Your task to perform on an android device: move a message to another label in the gmail app Image 0: 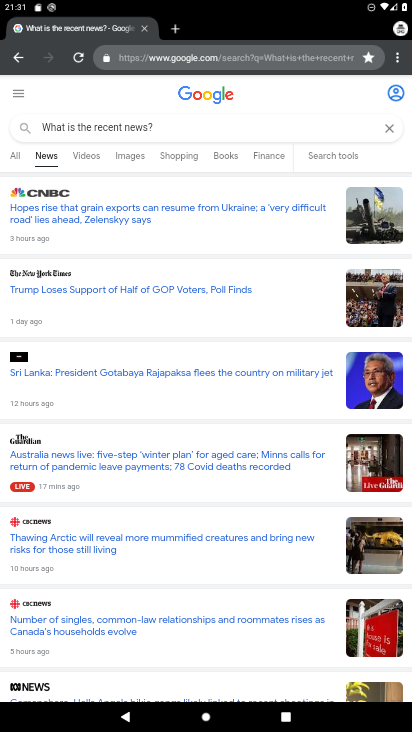
Step 0: press home button
Your task to perform on an android device: move a message to another label in the gmail app Image 1: 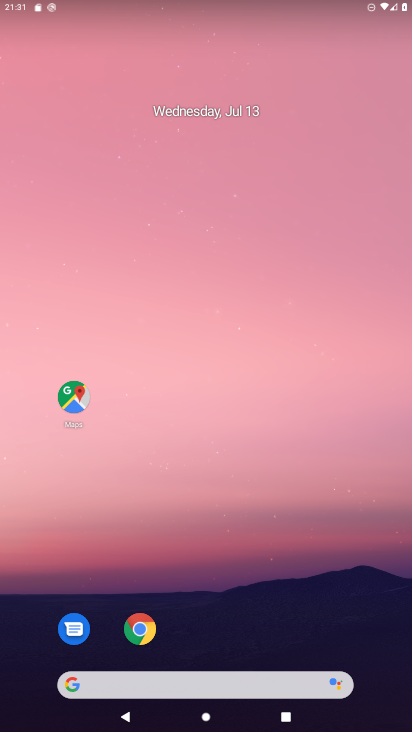
Step 1: drag from (282, 582) to (285, 125)
Your task to perform on an android device: move a message to another label in the gmail app Image 2: 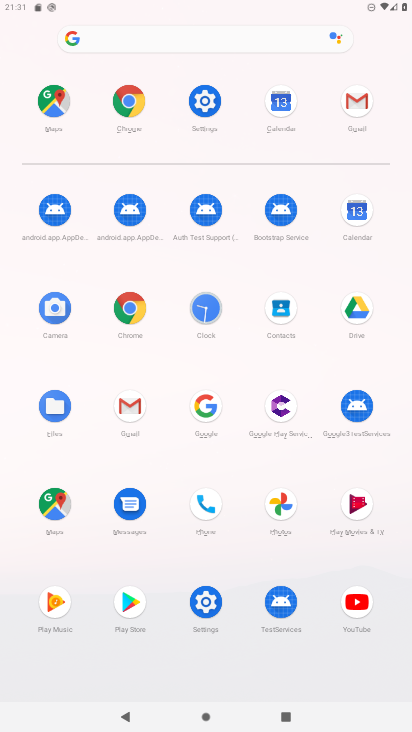
Step 2: click (127, 398)
Your task to perform on an android device: move a message to another label in the gmail app Image 3: 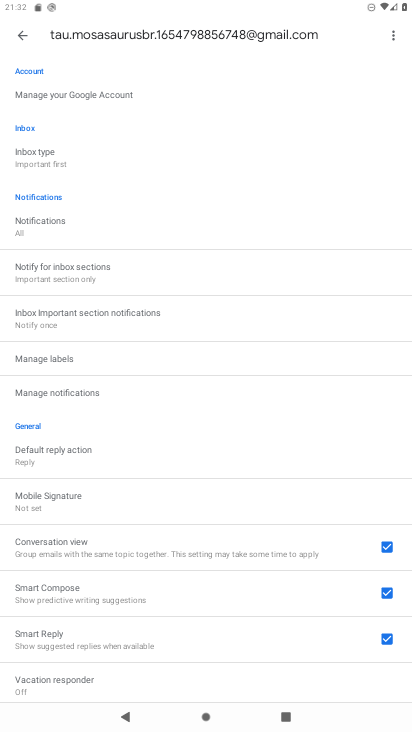
Step 3: click (20, 21)
Your task to perform on an android device: move a message to another label in the gmail app Image 4: 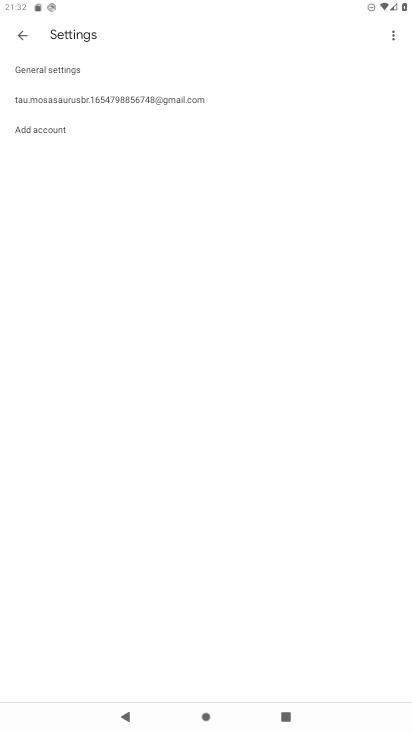
Step 4: click (20, 25)
Your task to perform on an android device: move a message to another label in the gmail app Image 5: 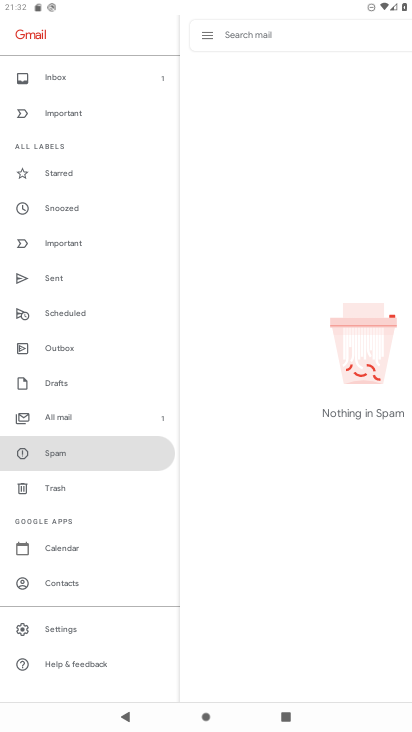
Step 5: click (58, 73)
Your task to perform on an android device: move a message to another label in the gmail app Image 6: 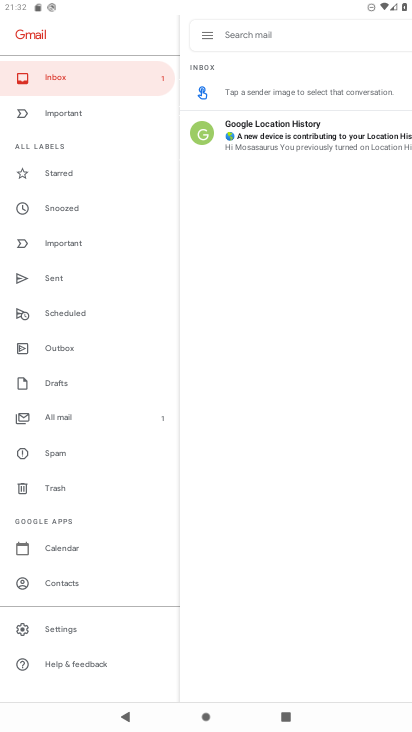
Step 6: click (205, 344)
Your task to perform on an android device: move a message to another label in the gmail app Image 7: 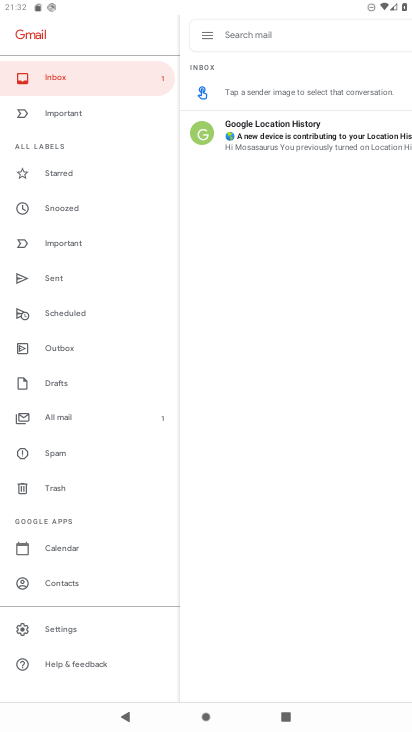
Step 7: click (205, 344)
Your task to perform on an android device: move a message to another label in the gmail app Image 8: 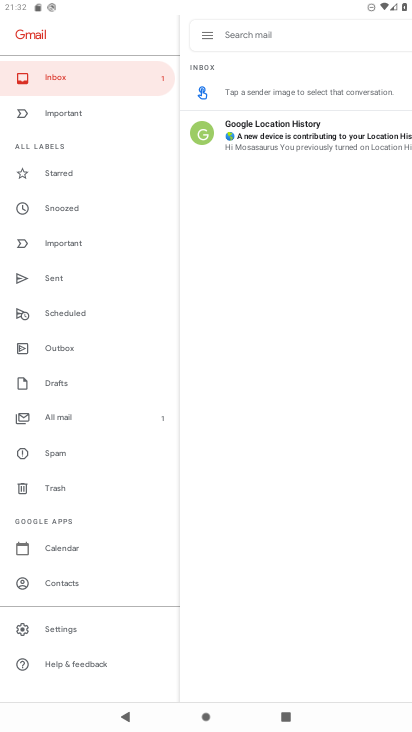
Step 8: drag from (190, 232) to (0, 207)
Your task to perform on an android device: move a message to another label in the gmail app Image 9: 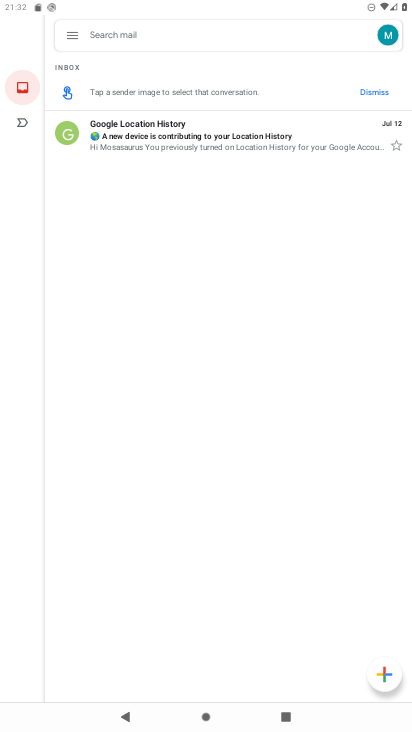
Step 9: click (74, 133)
Your task to perform on an android device: move a message to another label in the gmail app Image 10: 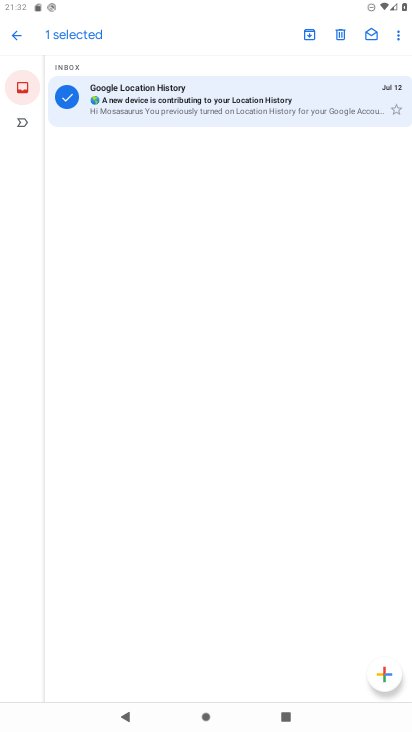
Step 10: click (399, 31)
Your task to perform on an android device: move a message to another label in the gmail app Image 11: 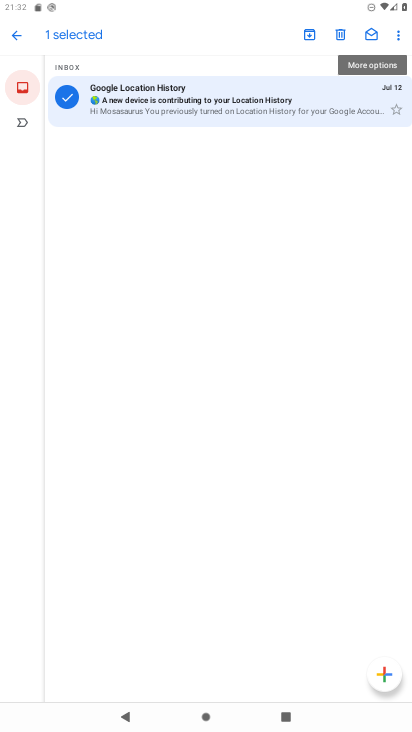
Step 11: click (399, 31)
Your task to perform on an android device: move a message to another label in the gmail app Image 12: 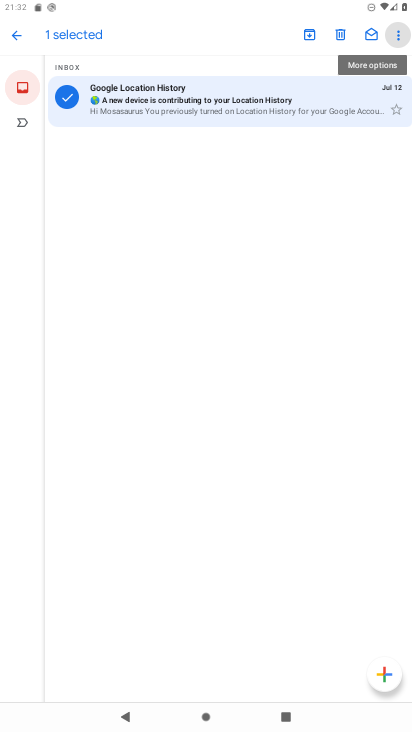
Step 12: click (399, 31)
Your task to perform on an android device: move a message to another label in the gmail app Image 13: 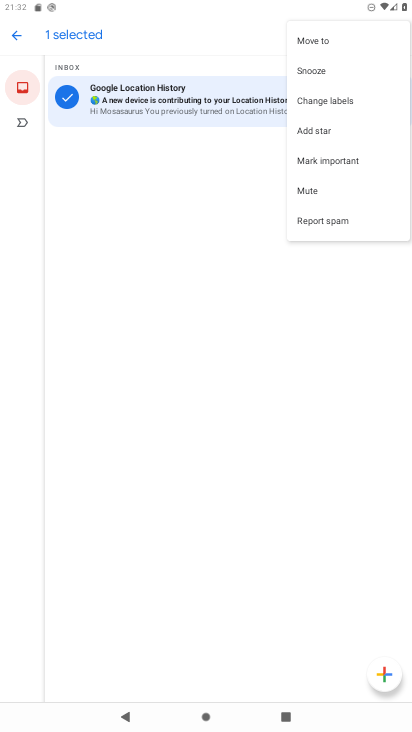
Step 13: click (316, 40)
Your task to perform on an android device: move a message to another label in the gmail app Image 14: 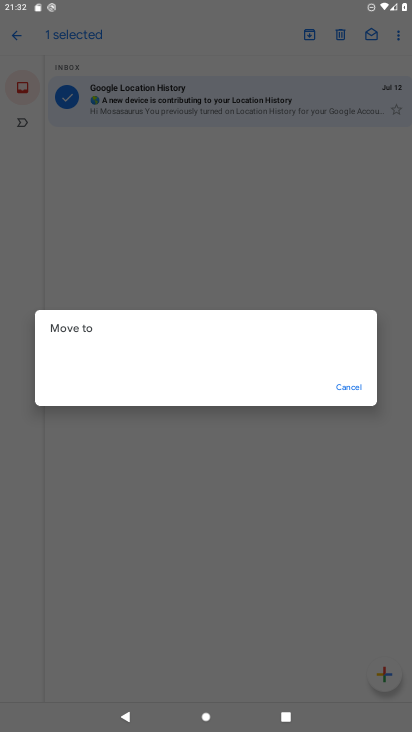
Step 14: click (346, 388)
Your task to perform on an android device: move a message to another label in the gmail app Image 15: 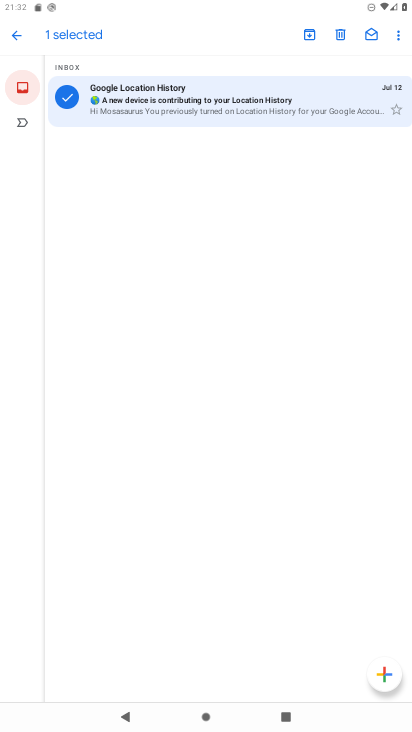
Step 15: task complete